Your task to perform on an android device: Check the weather Image 0: 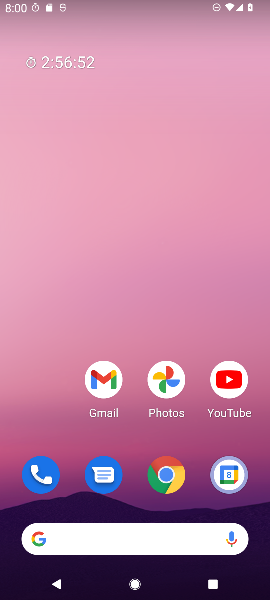
Step 0: task impossible